Your task to perform on an android device: add a contact in the contacts app Image 0: 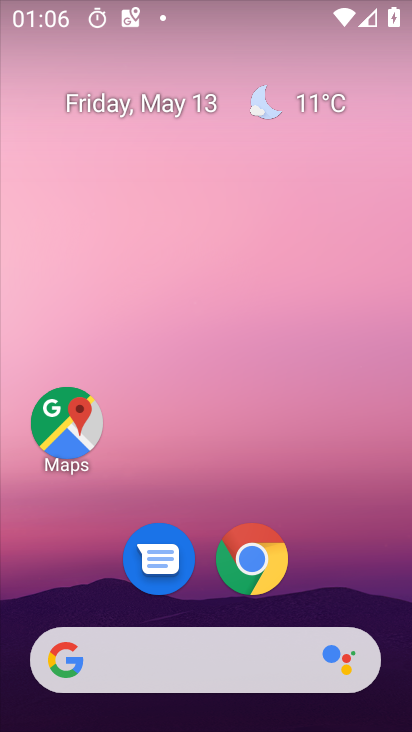
Step 0: drag from (396, 570) to (390, 93)
Your task to perform on an android device: add a contact in the contacts app Image 1: 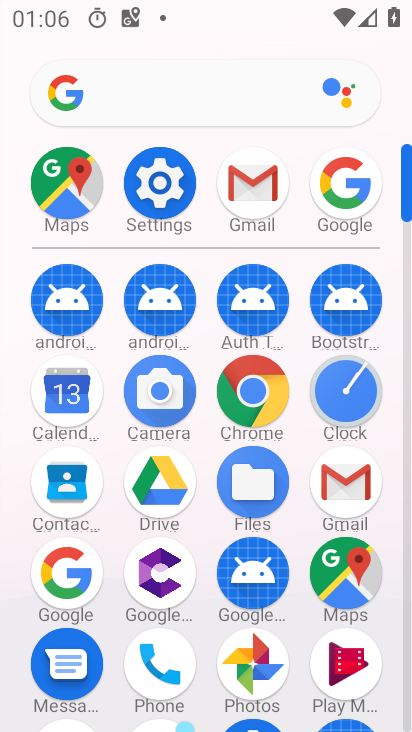
Step 1: click (59, 484)
Your task to perform on an android device: add a contact in the contacts app Image 2: 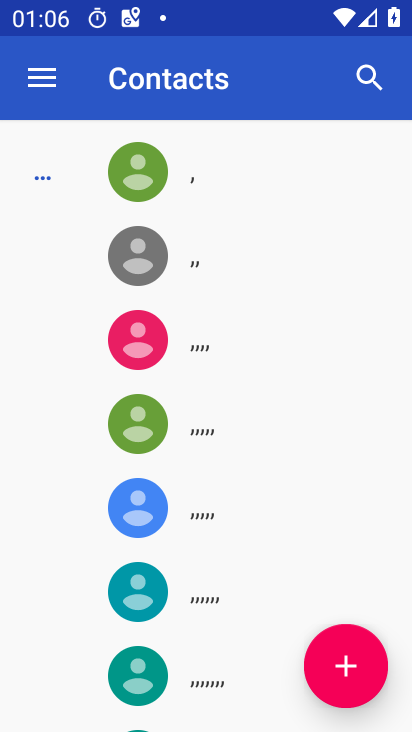
Step 2: click (349, 673)
Your task to perform on an android device: add a contact in the contacts app Image 3: 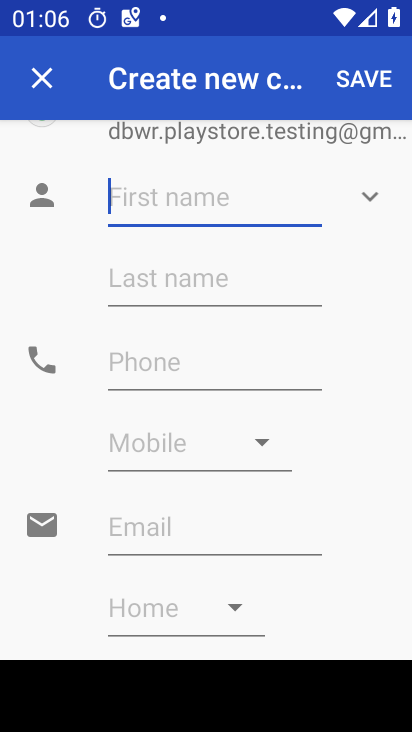
Step 3: type "nggfh"
Your task to perform on an android device: add a contact in the contacts app Image 4: 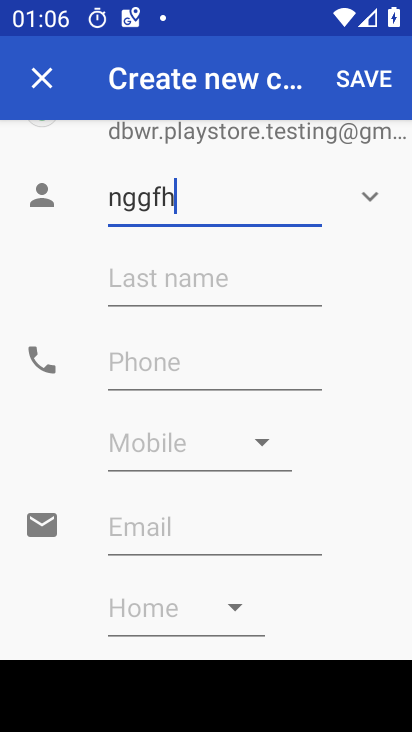
Step 4: click (366, 79)
Your task to perform on an android device: add a contact in the contacts app Image 5: 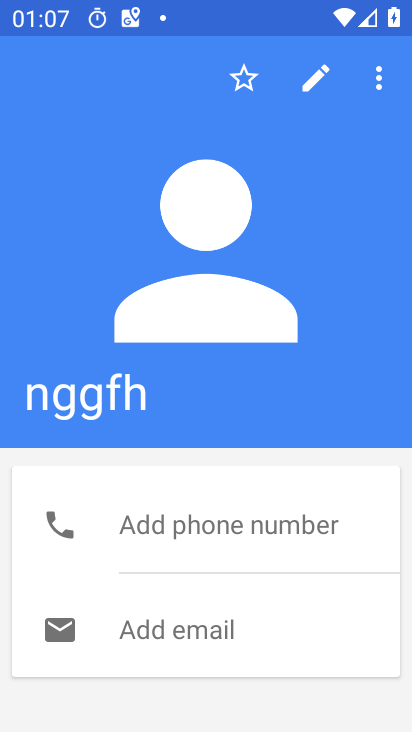
Step 5: task complete